Your task to perform on an android device: Clear all items from cart on walmart. Image 0: 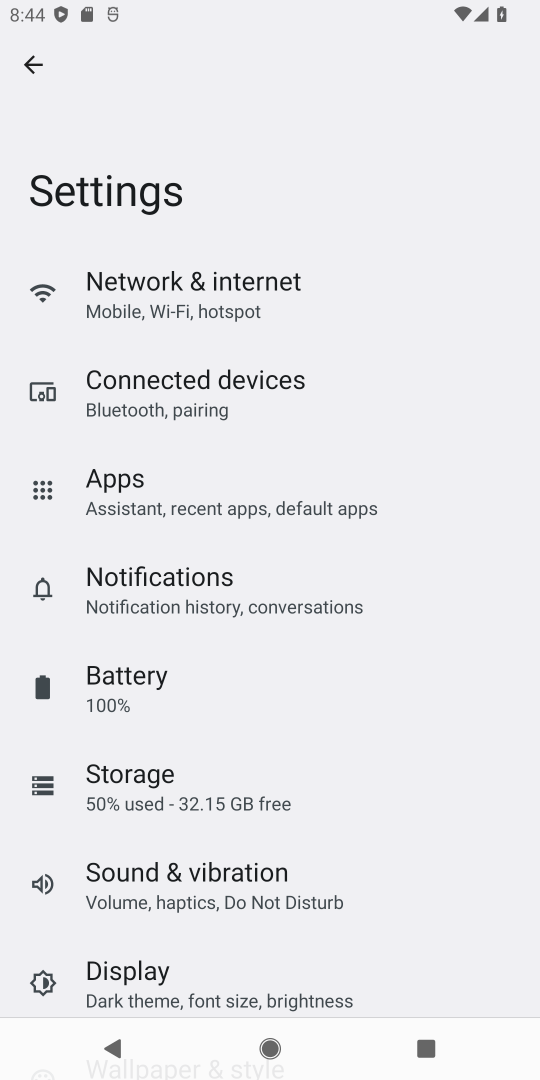
Step 0: press home button
Your task to perform on an android device: Clear all items from cart on walmart. Image 1: 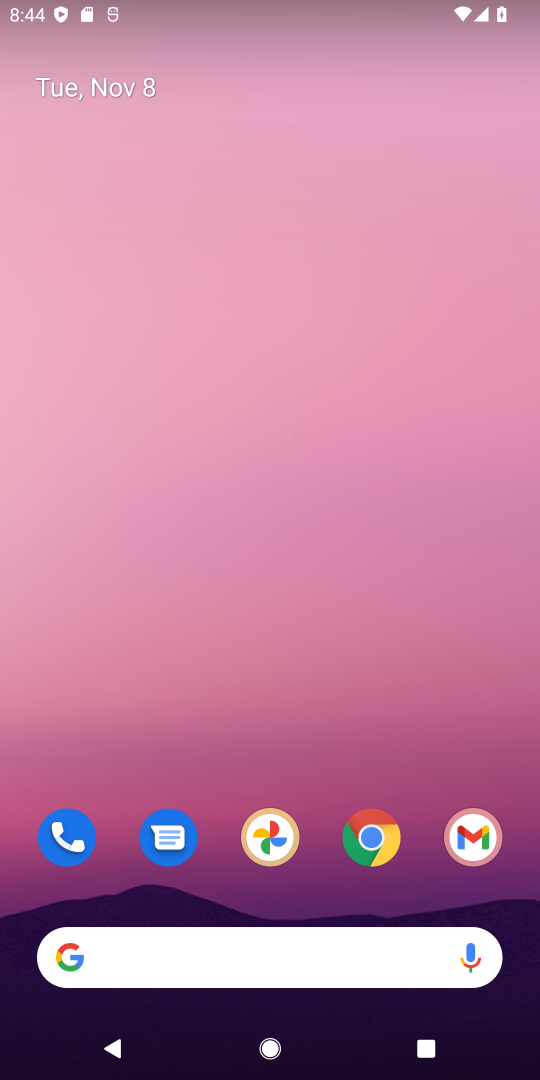
Step 1: click (380, 842)
Your task to perform on an android device: Clear all items from cart on walmart. Image 2: 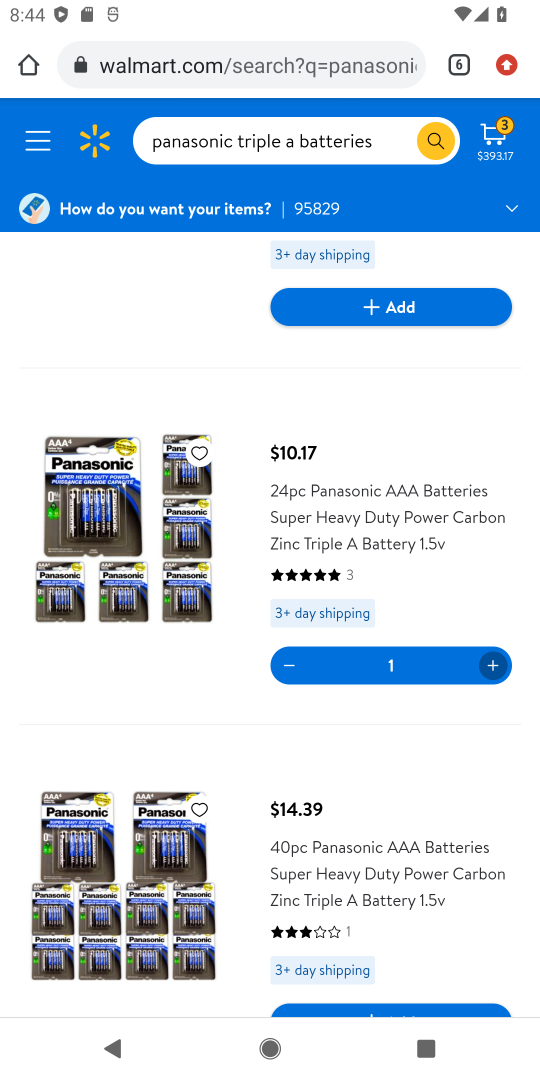
Step 2: click (501, 140)
Your task to perform on an android device: Clear all items from cart on walmart. Image 3: 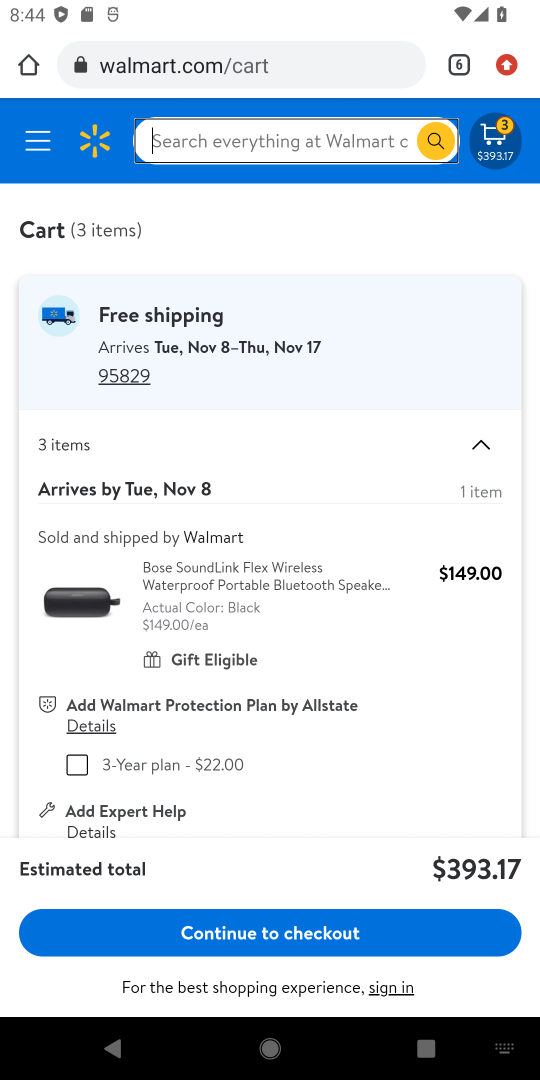
Step 3: drag from (328, 735) to (306, 479)
Your task to perform on an android device: Clear all items from cart on walmart. Image 4: 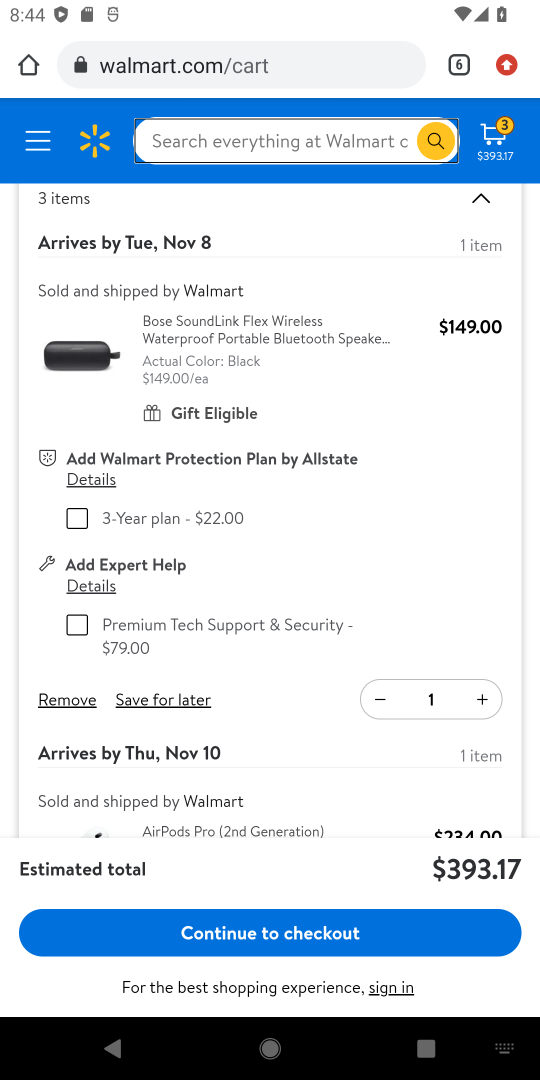
Step 4: click (77, 703)
Your task to perform on an android device: Clear all items from cart on walmart. Image 5: 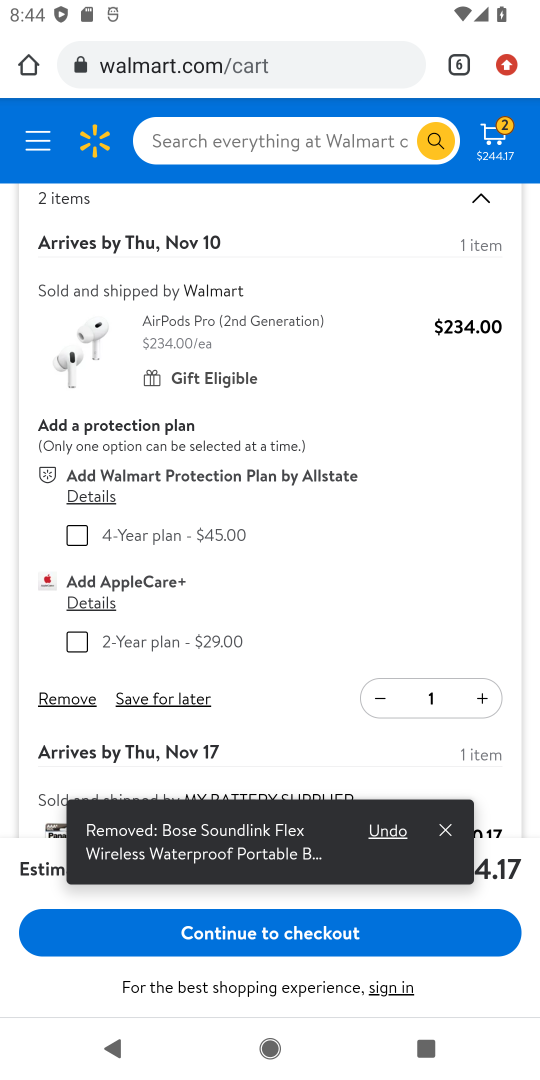
Step 5: click (77, 703)
Your task to perform on an android device: Clear all items from cart on walmart. Image 6: 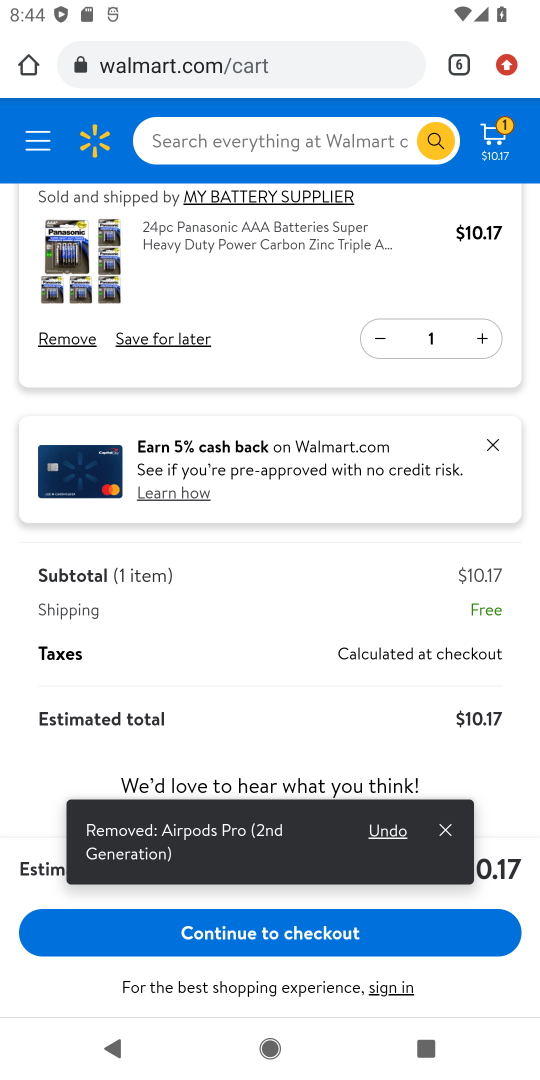
Step 6: click (64, 338)
Your task to perform on an android device: Clear all items from cart on walmart. Image 7: 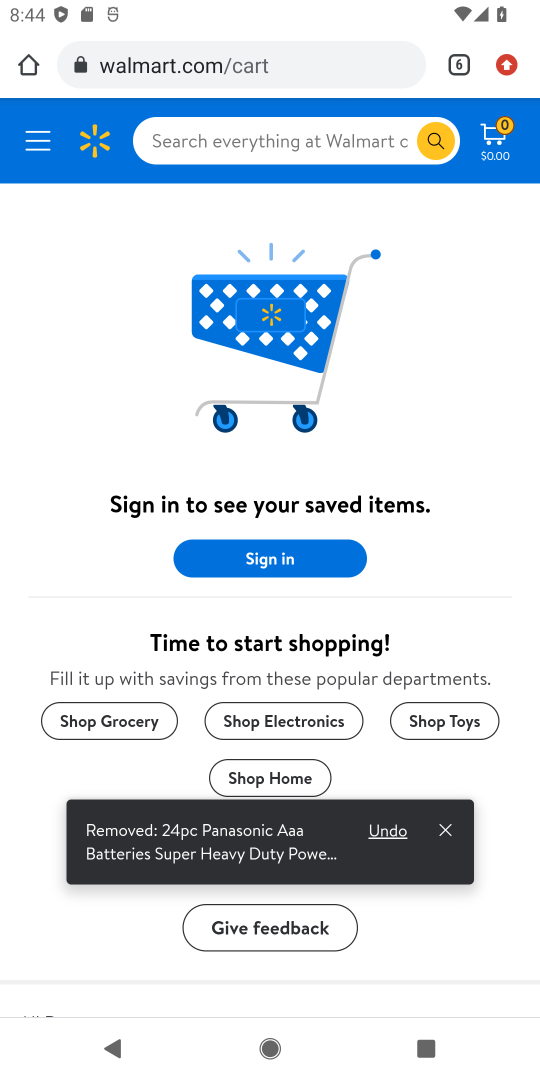
Step 7: task complete